Your task to perform on an android device: turn on bluetooth scan Image 0: 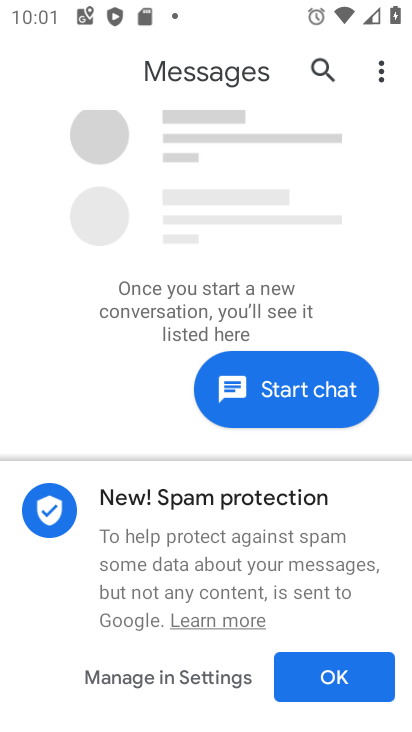
Step 0: press home button
Your task to perform on an android device: turn on bluetooth scan Image 1: 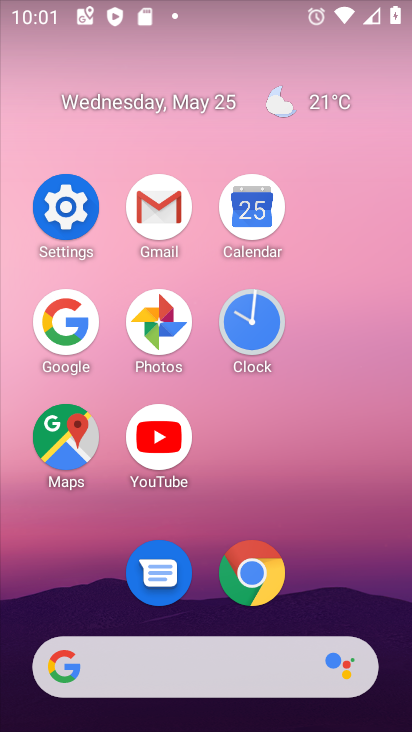
Step 1: click (49, 236)
Your task to perform on an android device: turn on bluetooth scan Image 2: 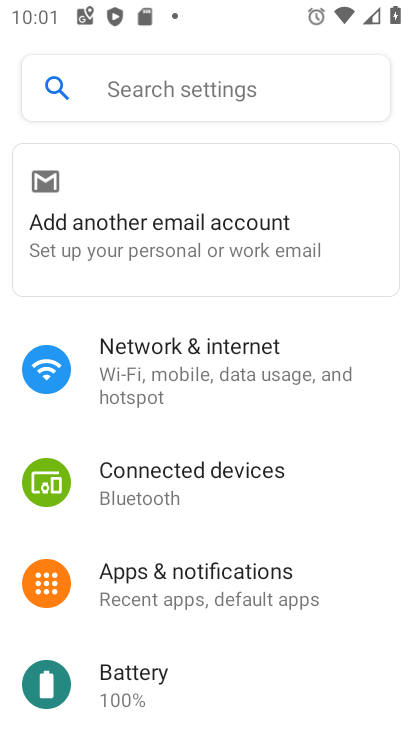
Step 2: drag from (255, 592) to (285, 189)
Your task to perform on an android device: turn on bluetooth scan Image 3: 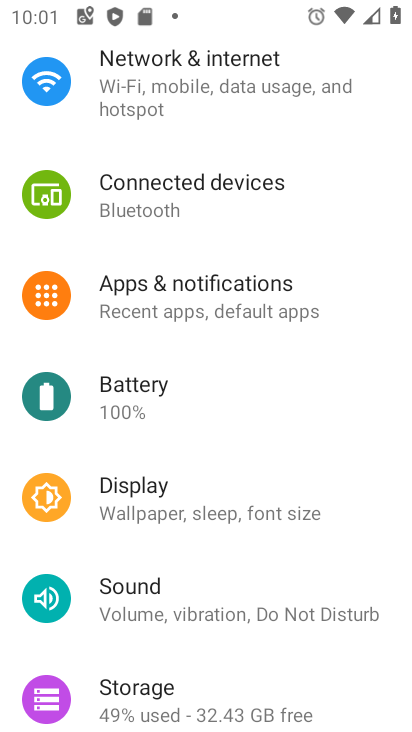
Step 3: drag from (227, 591) to (276, 262)
Your task to perform on an android device: turn on bluetooth scan Image 4: 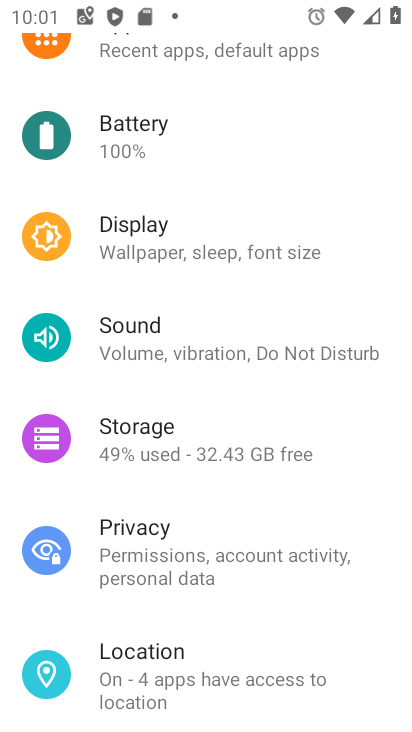
Step 4: click (193, 670)
Your task to perform on an android device: turn on bluetooth scan Image 5: 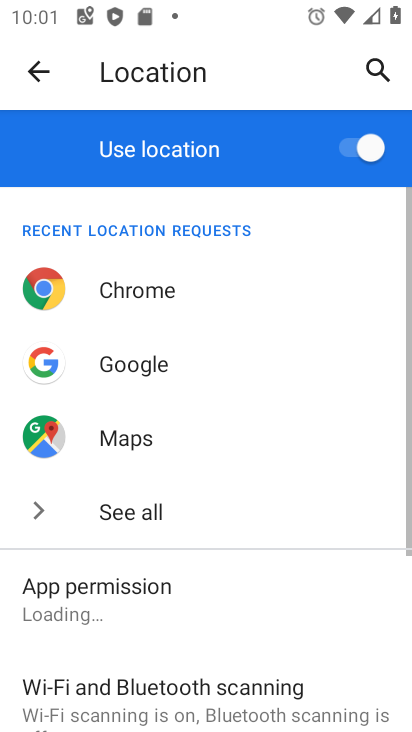
Step 5: drag from (220, 567) to (257, 188)
Your task to perform on an android device: turn on bluetooth scan Image 6: 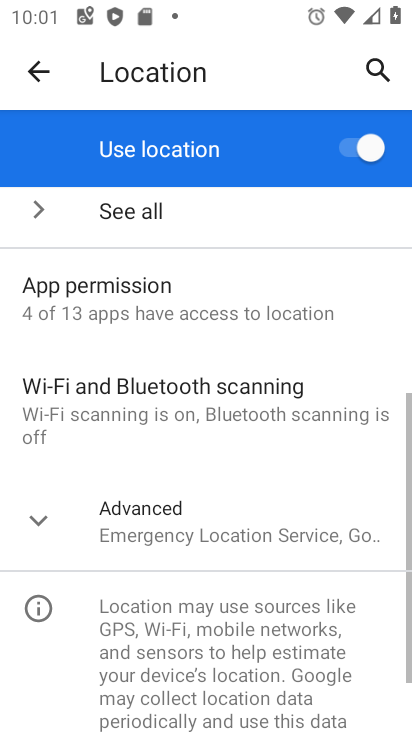
Step 6: click (250, 404)
Your task to perform on an android device: turn on bluetooth scan Image 7: 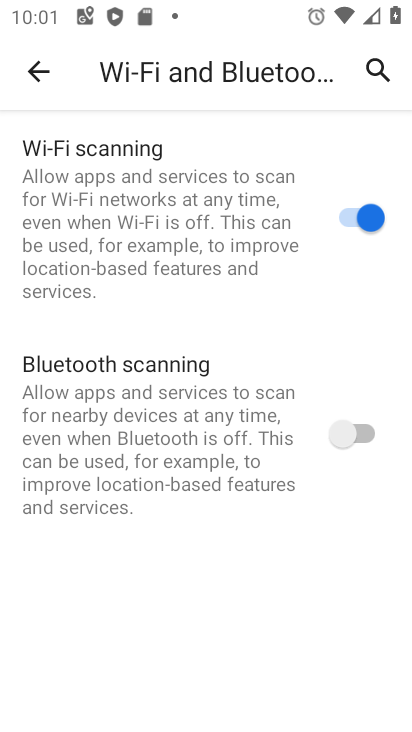
Step 7: click (350, 433)
Your task to perform on an android device: turn on bluetooth scan Image 8: 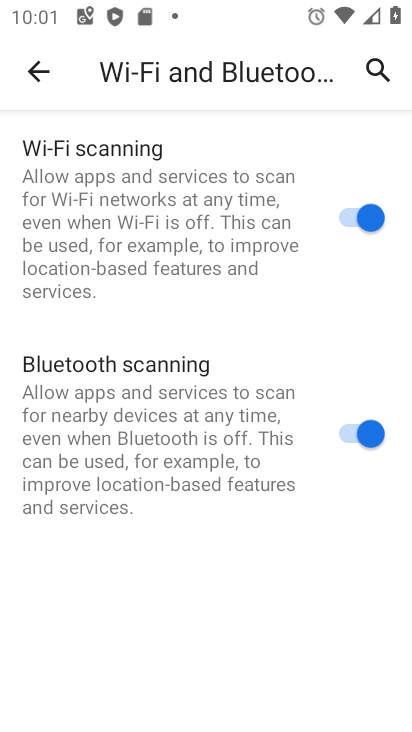
Step 8: task complete